Your task to perform on an android device: turn on improve location accuracy Image 0: 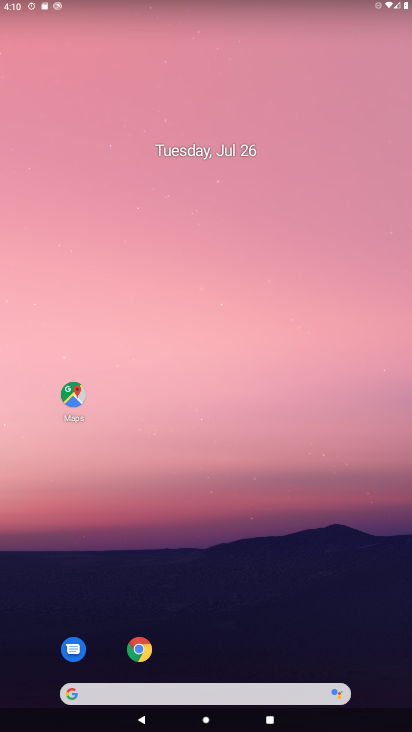
Step 0: drag from (333, 616) to (150, 26)
Your task to perform on an android device: turn on improve location accuracy Image 1: 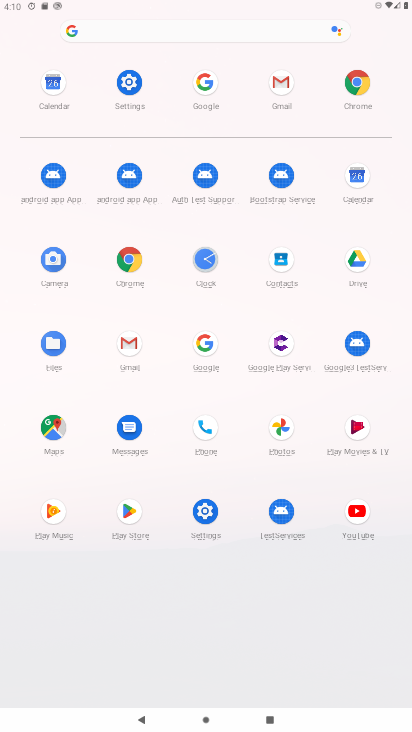
Step 1: click (211, 515)
Your task to perform on an android device: turn on improve location accuracy Image 2: 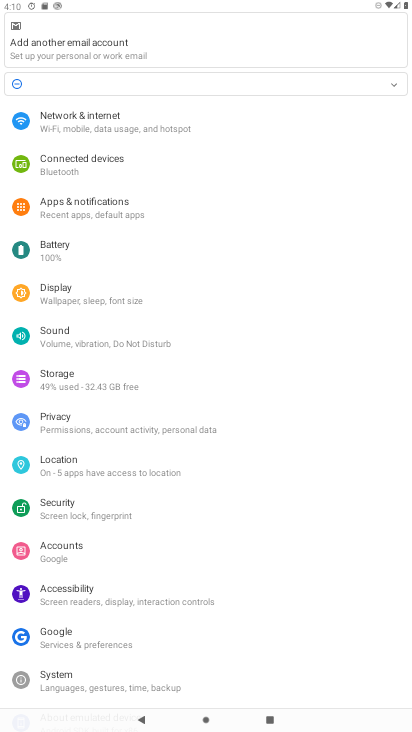
Step 2: click (100, 472)
Your task to perform on an android device: turn on improve location accuracy Image 3: 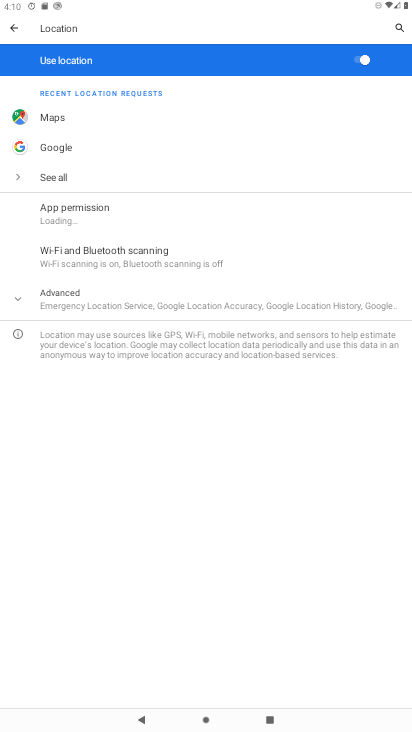
Step 3: click (72, 294)
Your task to perform on an android device: turn on improve location accuracy Image 4: 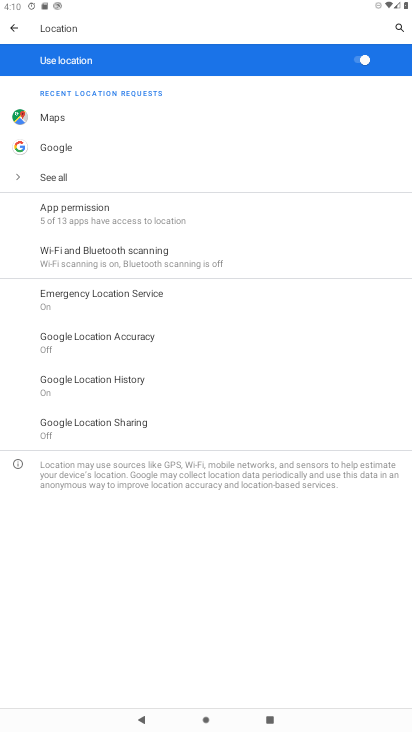
Step 4: click (69, 340)
Your task to perform on an android device: turn on improve location accuracy Image 5: 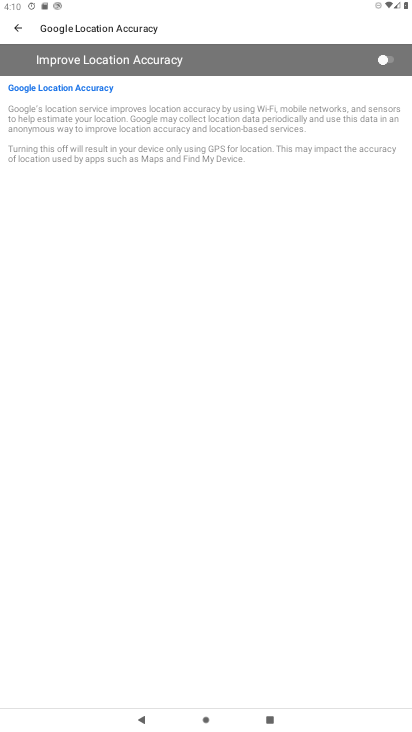
Step 5: click (393, 60)
Your task to perform on an android device: turn on improve location accuracy Image 6: 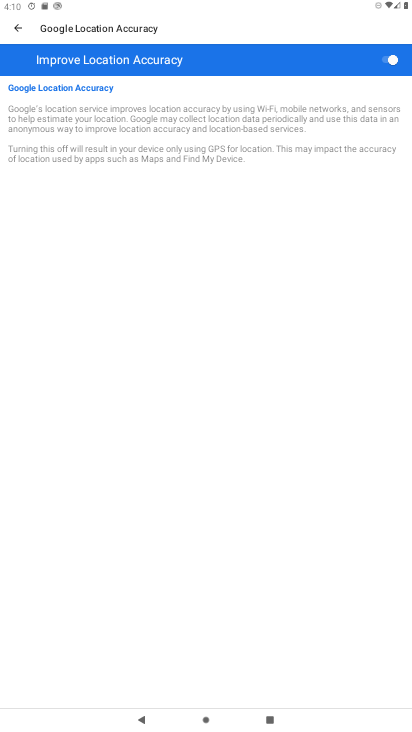
Step 6: task complete